Your task to perform on an android device: When is my next appointment? Image 0: 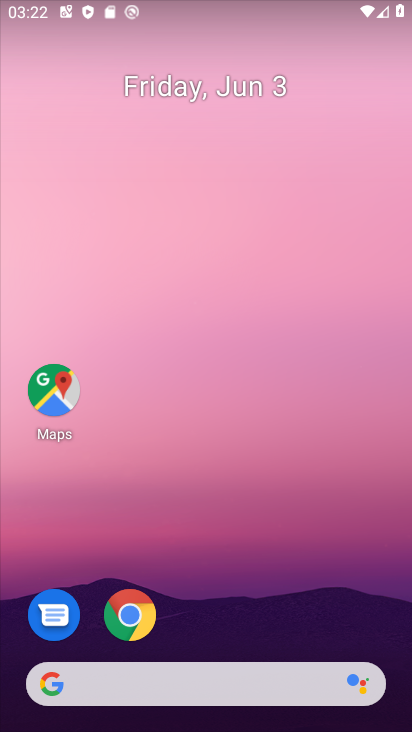
Step 0: drag from (251, 636) to (253, 129)
Your task to perform on an android device: When is my next appointment? Image 1: 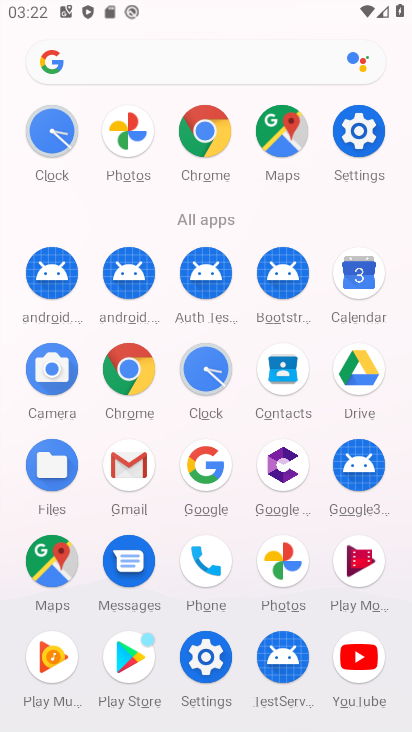
Step 1: click (355, 267)
Your task to perform on an android device: When is my next appointment? Image 2: 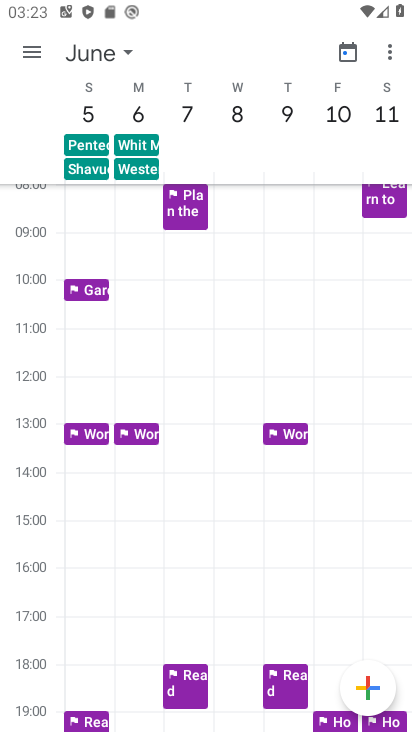
Step 2: click (32, 47)
Your task to perform on an android device: When is my next appointment? Image 3: 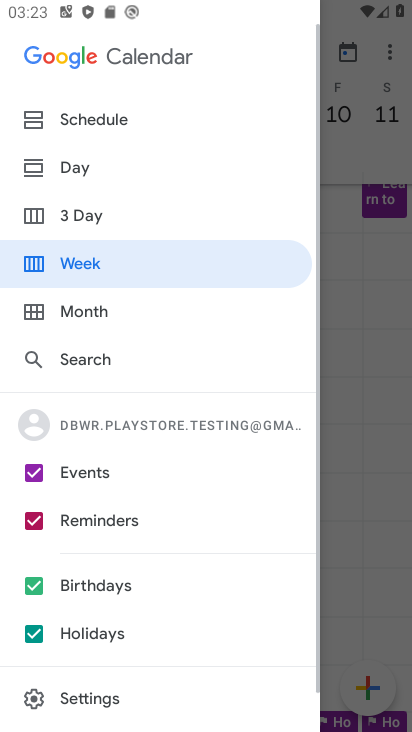
Step 3: click (126, 126)
Your task to perform on an android device: When is my next appointment? Image 4: 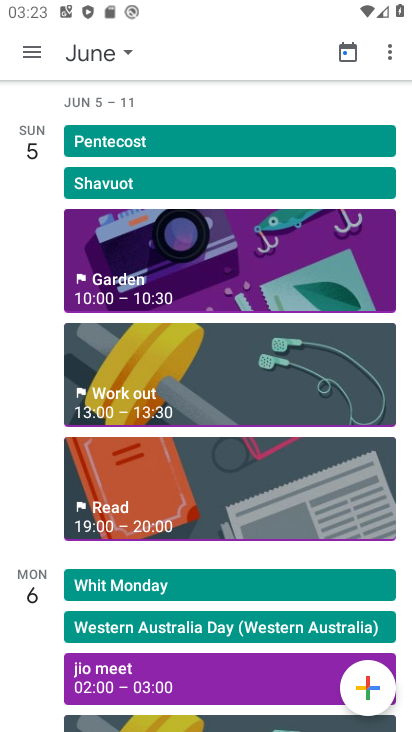
Step 4: click (102, 54)
Your task to perform on an android device: When is my next appointment? Image 5: 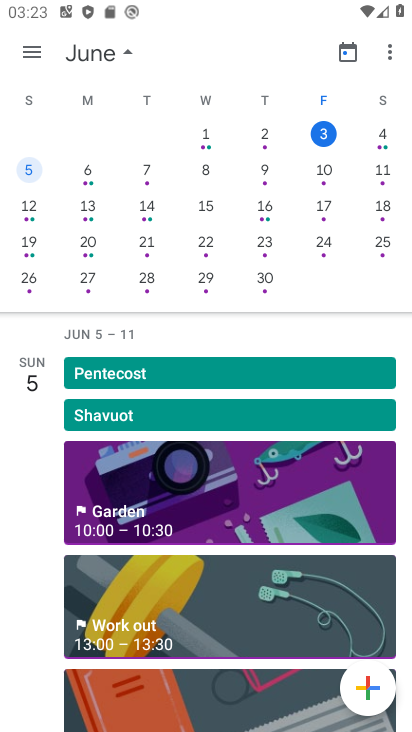
Step 5: click (322, 135)
Your task to perform on an android device: When is my next appointment? Image 6: 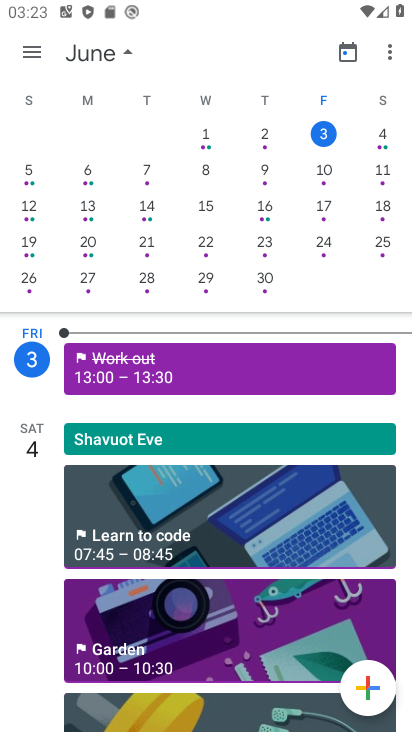
Step 6: task complete